Your task to perform on an android device: Go to Yahoo.com Image 0: 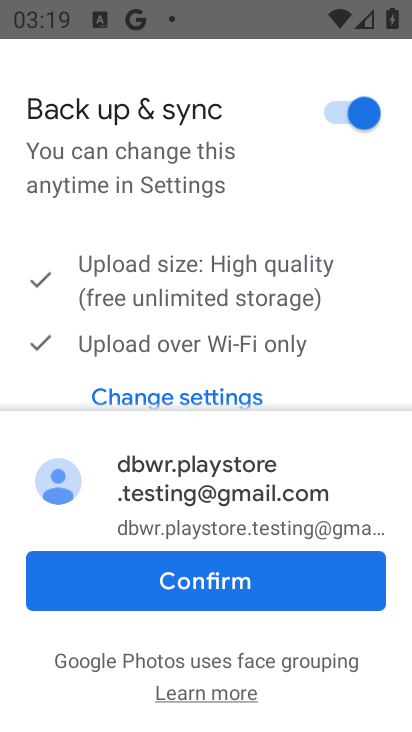
Step 0: press home button
Your task to perform on an android device: Go to Yahoo.com Image 1: 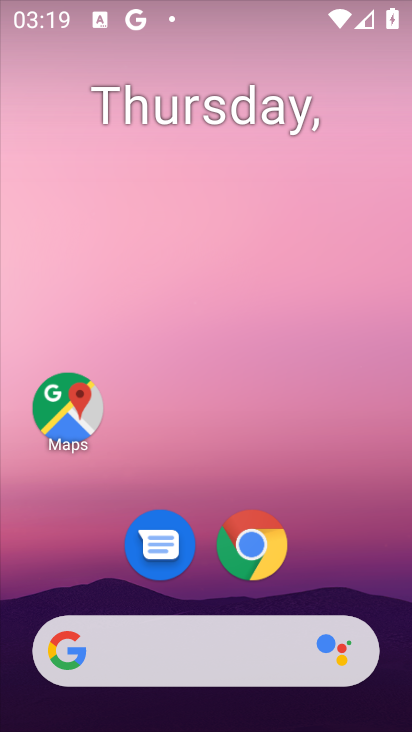
Step 1: click (158, 656)
Your task to perform on an android device: Go to Yahoo.com Image 2: 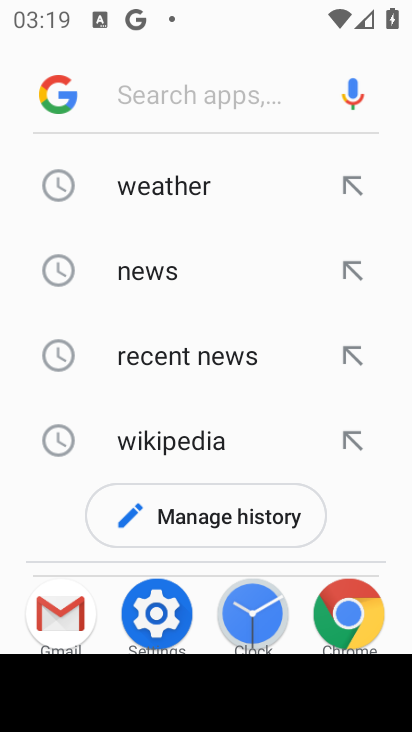
Step 2: type "yahoo.com"
Your task to perform on an android device: Go to Yahoo.com Image 3: 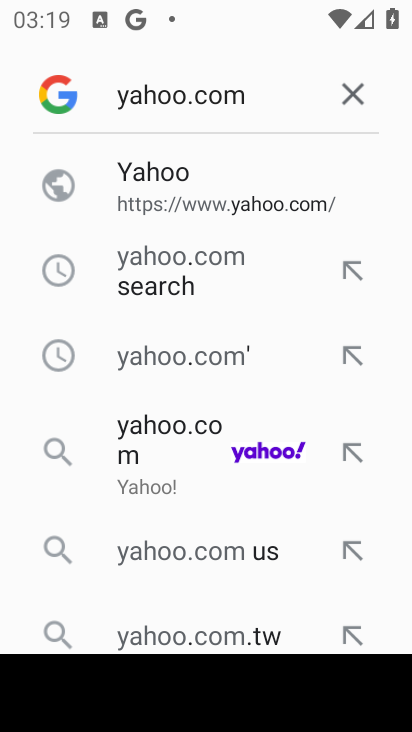
Step 3: click (351, 185)
Your task to perform on an android device: Go to Yahoo.com Image 4: 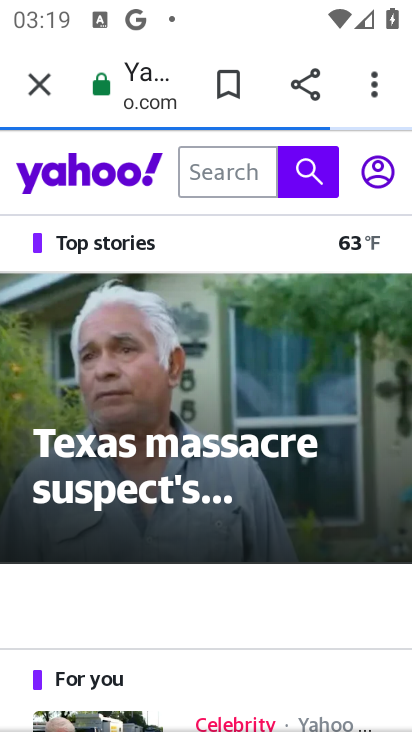
Step 4: task complete